Your task to perform on an android device: see sites visited before in the chrome app Image 0: 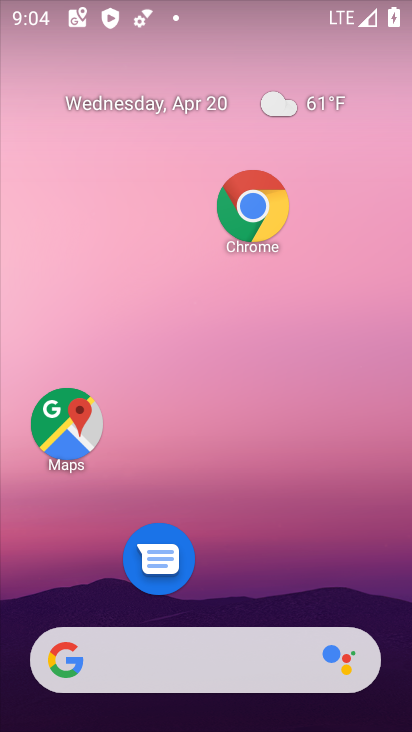
Step 0: click (250, 207)
Your task to perform on an android device: see sites visited before in the chrome app Image 1: 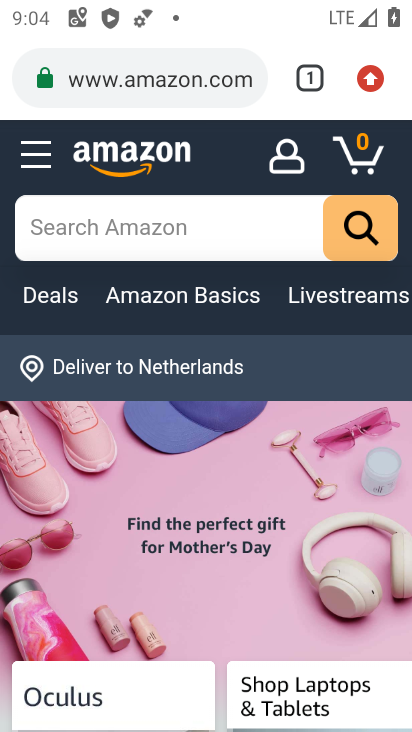
Step 1: click (369, 79)
Your task to perform on an android device: see sites visited before in the chrome app Image 2: 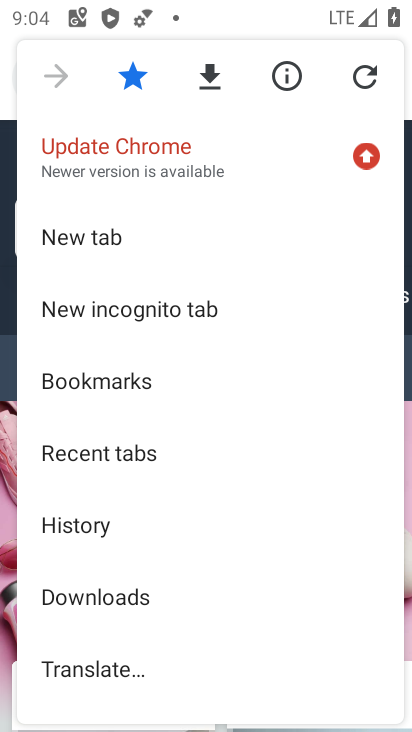
Step 2: click (117, 454)
Your task to perform on an android device: see sites visited before in the chrome app Image 3: 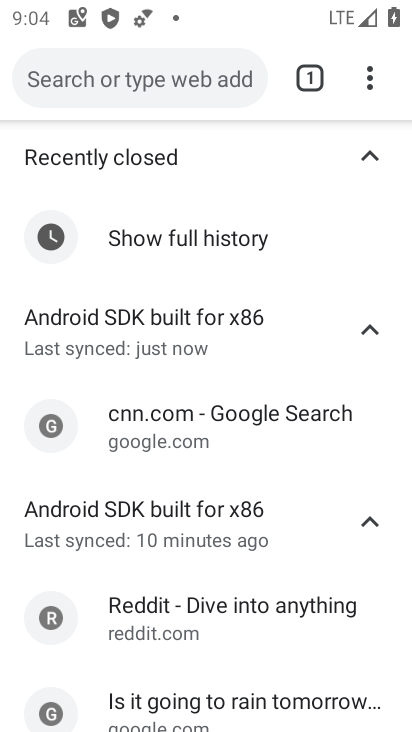
Step 3: click (149, 436)
Your task to perform on an android device: see sites visited before in the chrome app Image 4: 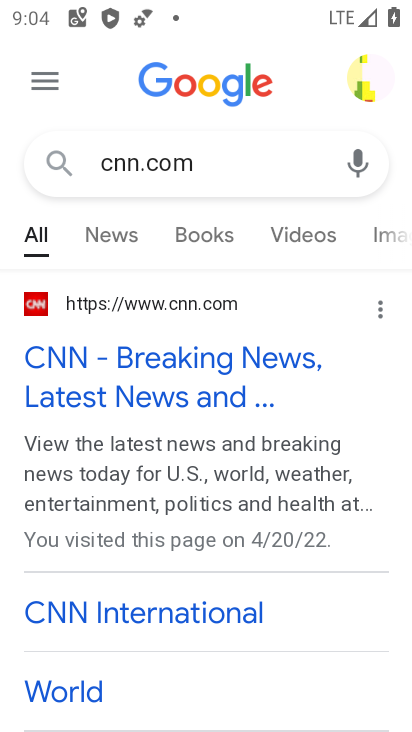
Step 4: task complete